Your task to perform on an android device: change the clock display to digital Image 0: 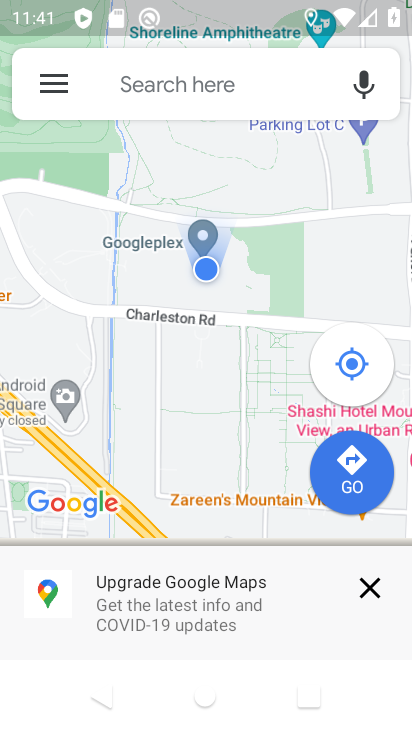
Step 0: click (369, 586)
Your task to perform on an android device: change the clock display to digital Image 1: 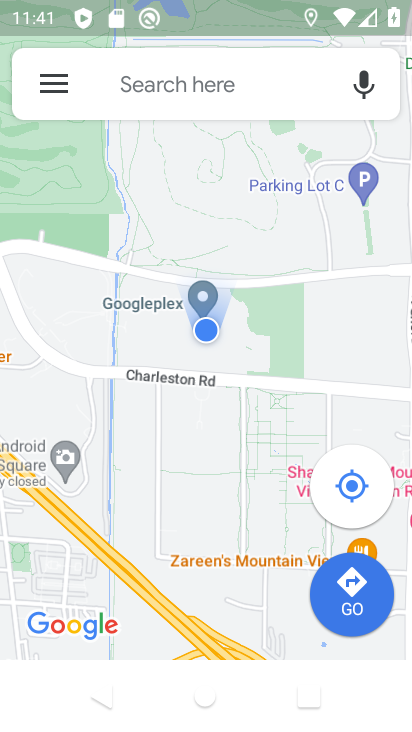
Step 1: press home button
Your task to perform on an android device: change the clock display to digital Image 2: 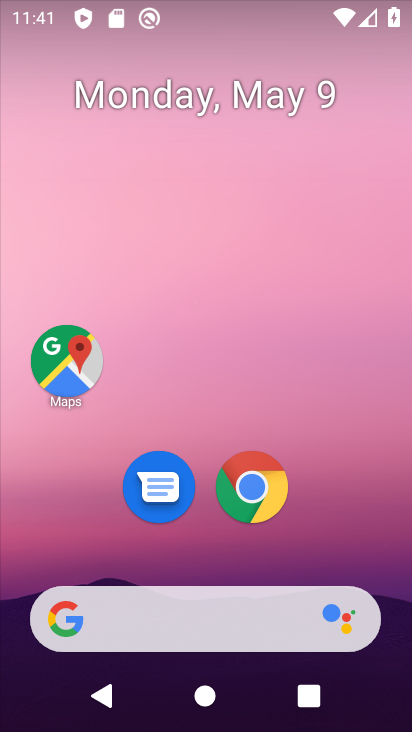
Step 2: drag from (327, 518) to (274, 94)
Your task to perform on an android device: change the clock display to digital Image 3: 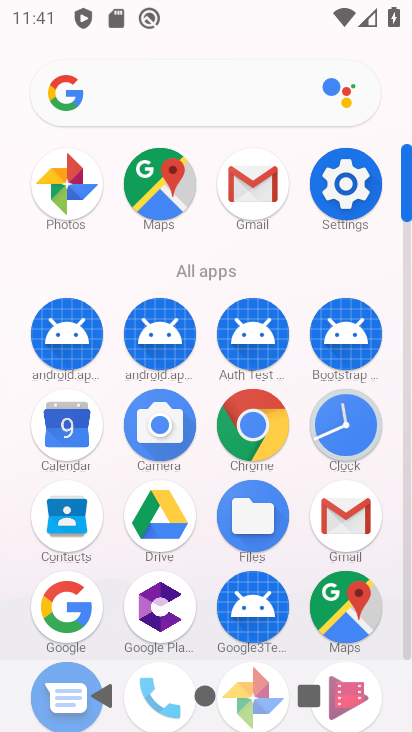
Step 3: click (324, 197)
Your task to perform on an android device: change the clock display to digital Image 4: 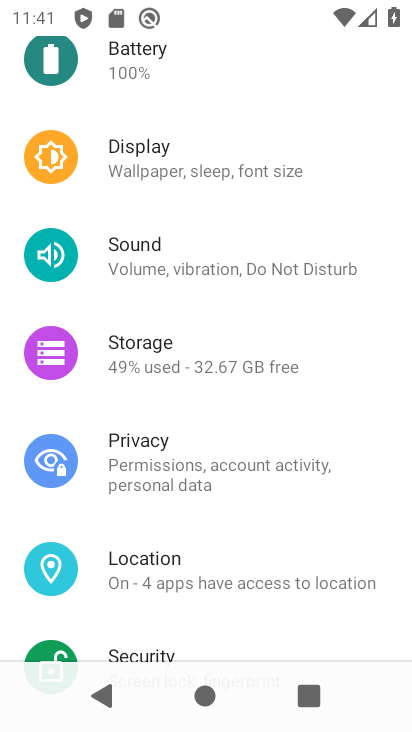
Step 4: press home button
Your task to perform on an android device: change the clock display to digital Image 5: 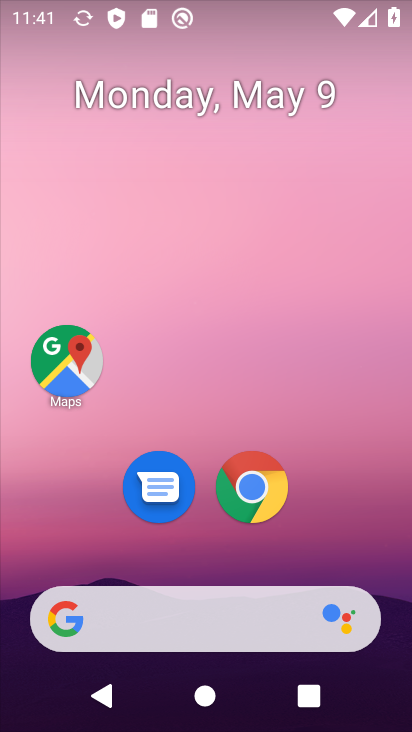
Step 5: drag from (371, 540) to (317, 89)
Your task to perform on an android device: change the clock display to digital Image 6: 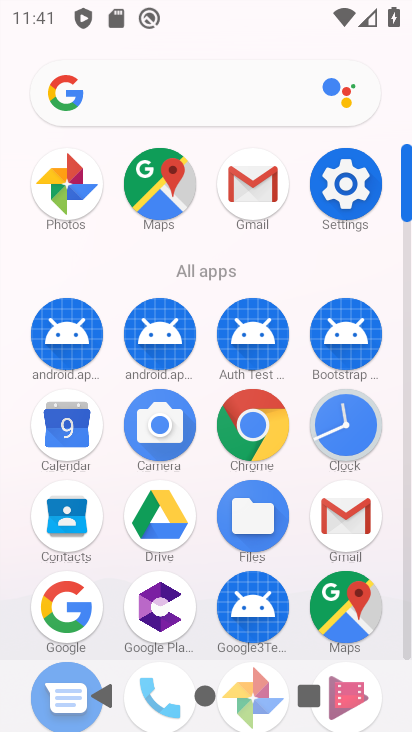
Step 6: click (347, 412)
Your task to perform on an android device: change the clock display to digital Image 7: 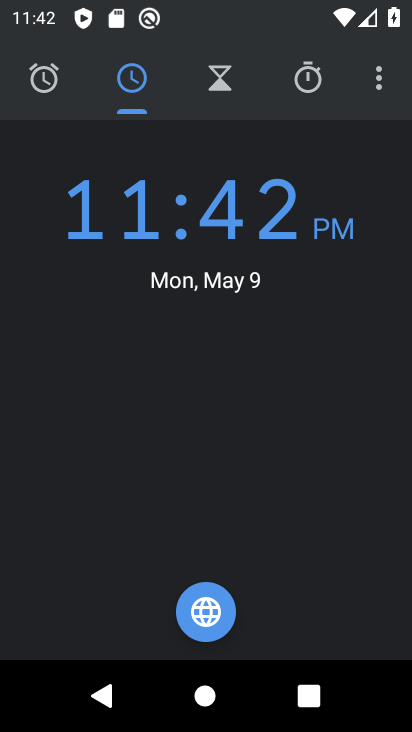
Step 7: click (371, 89)
Your task to perform on an android device: change the clock display to digital Image 8: 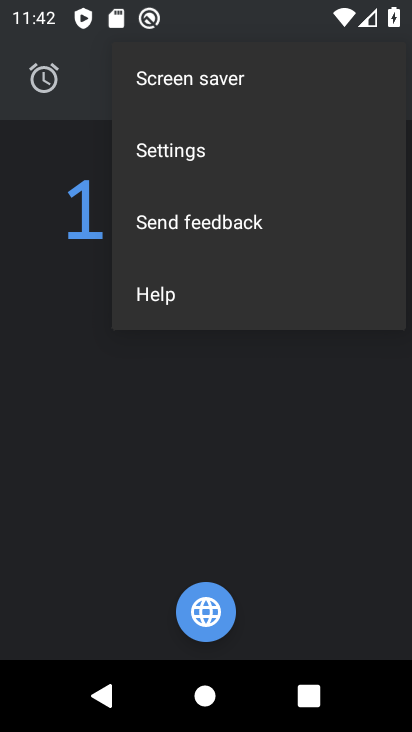
Step 8: click (249, 138)
Your task to perform on an android device: change the clock display to digital Image 9: 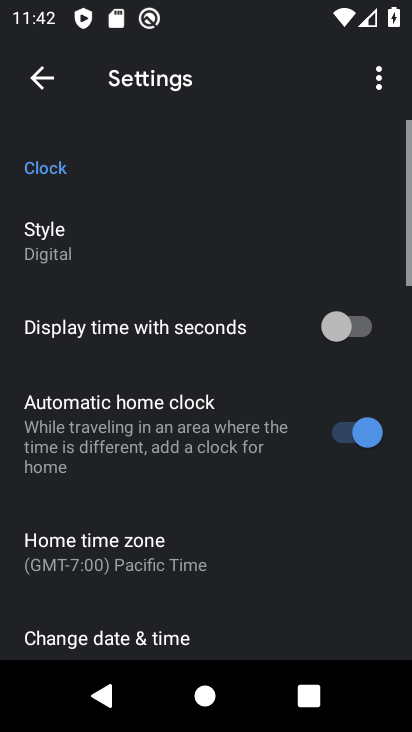
Step 9: click (139, 242)
Your task to perform on an android device: change the clock display to digital Image 10: 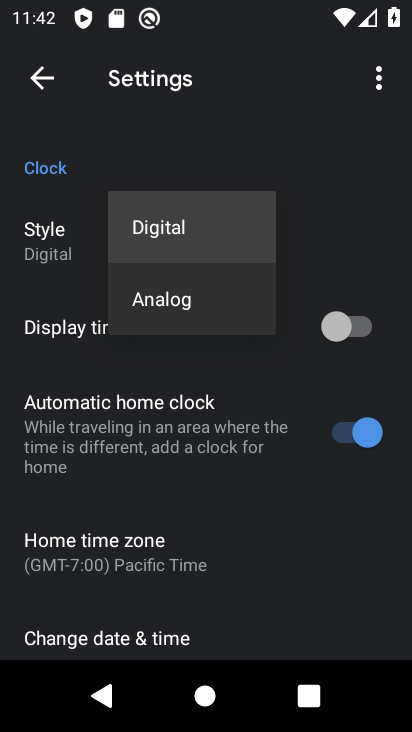
Step 10: task complete